Your task to perform on an android device: install app "DuckDuckGo Privacy Browser" Image 0: 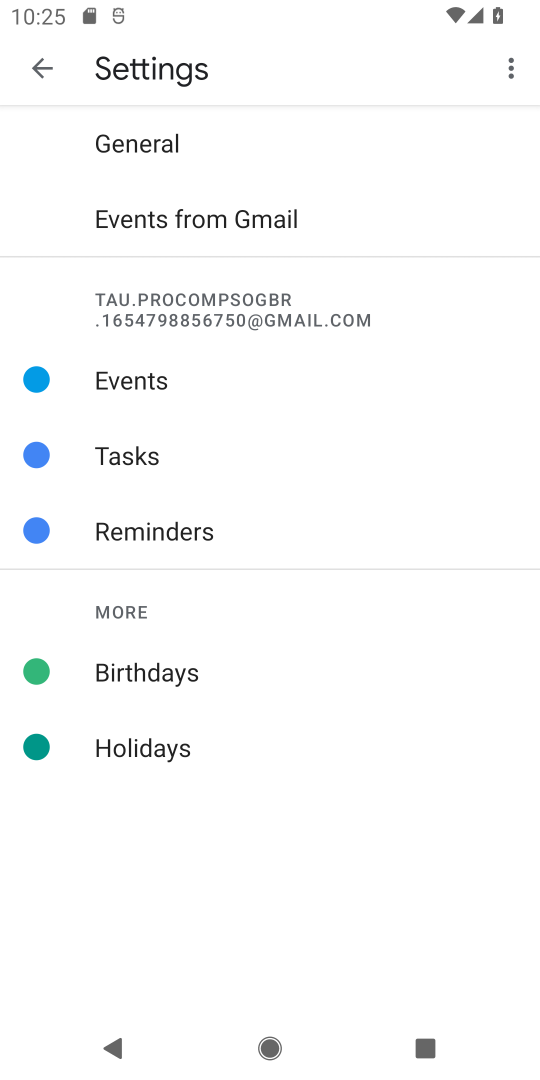
Step 0: press home button
Your task to perform on an android device: install app "DuckDuckGo Privacy Browser" Image 1: 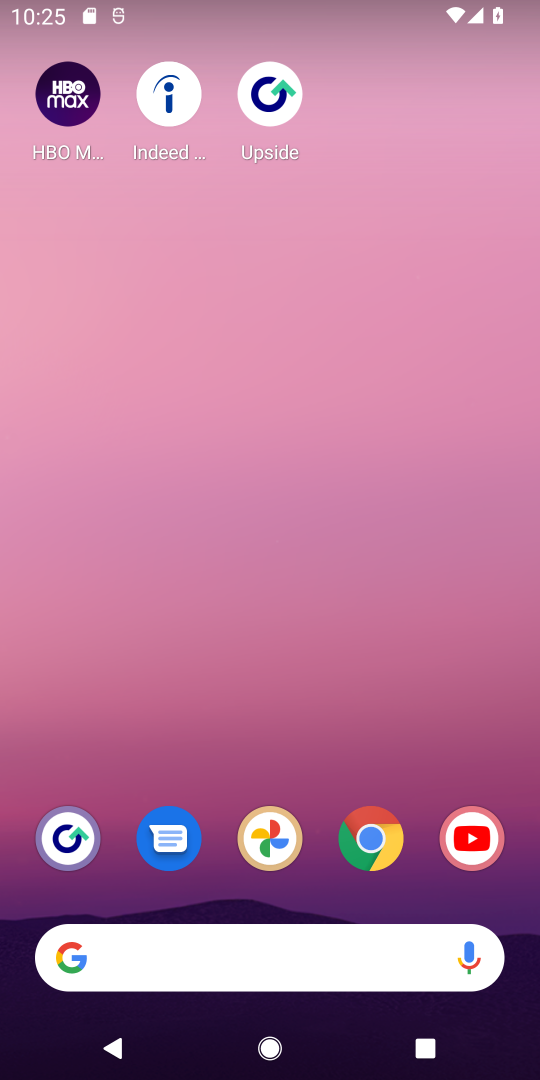
Step 1: press home button
Your task to perform on an android device: install app "DuckDuckGo Privacy Browser" Image 2: 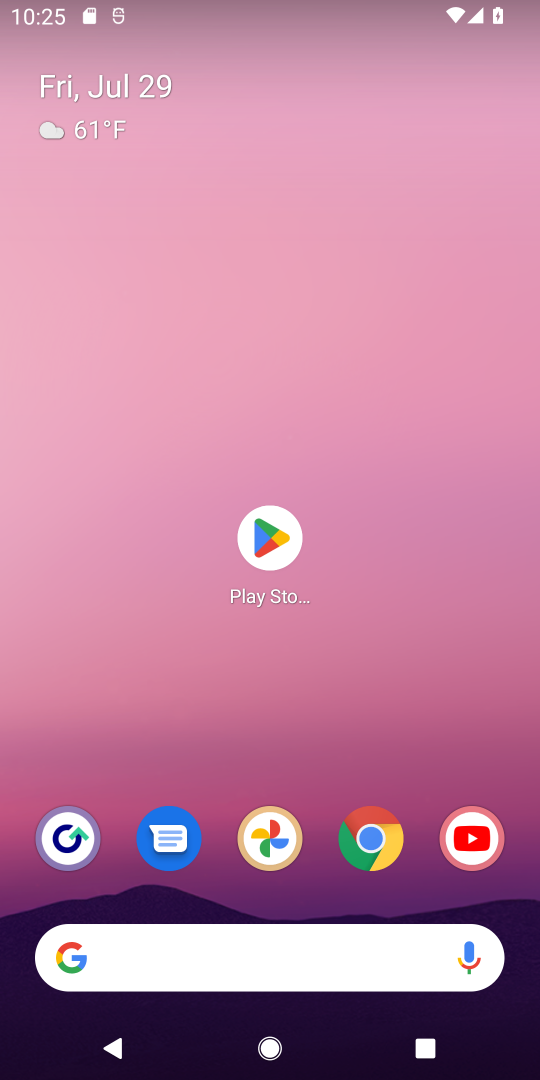
Step 2: click (277, 530)
Your task to perform on an android device: install app "DuckDuckGo Privacy Browser" Image 3: 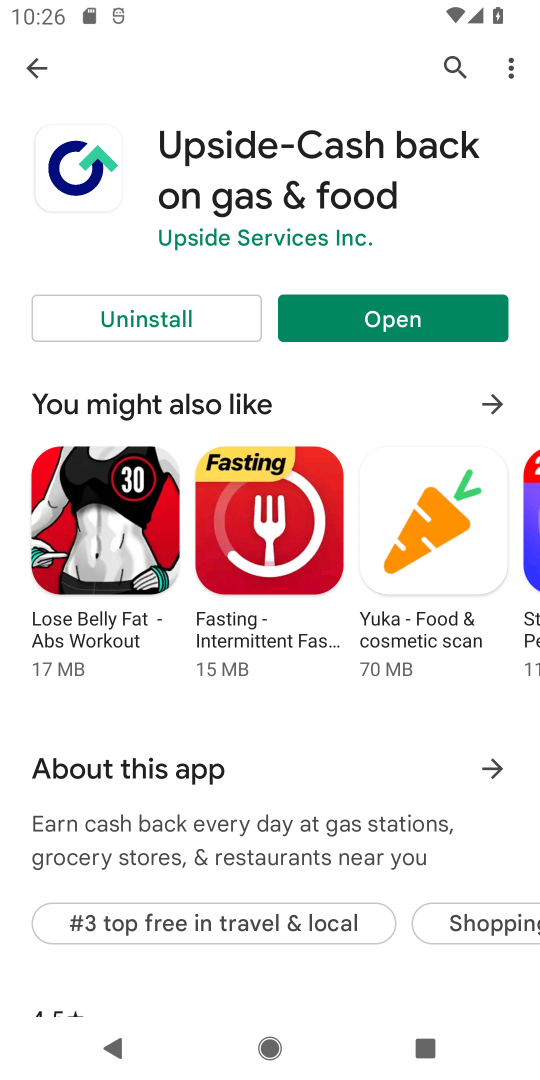
Step 3: click (451, 68)
Your task to perform on an android device: install app "DuckDuckGo Privacy Browser" Image 4: 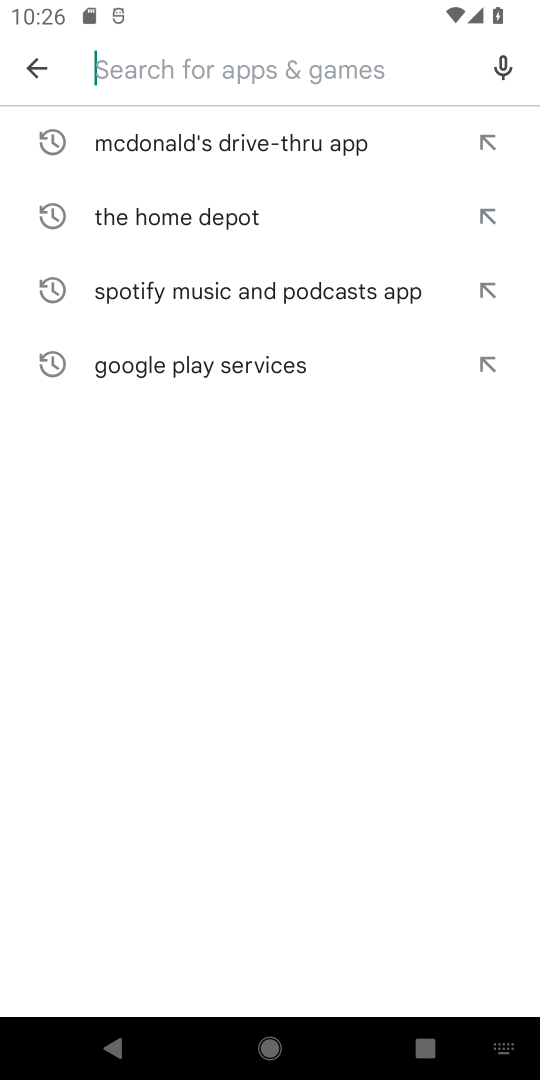
Step 4: type "DuckDuckGo Privacy Browser"
Your task to perform on an android device: install app "DuckDuckGo Privacy Browser" Image 5: 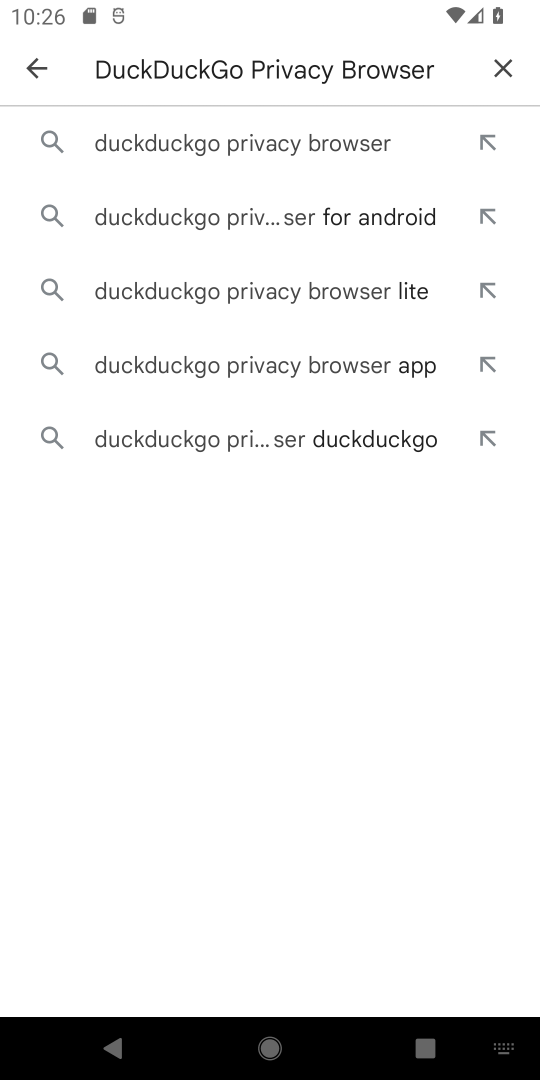
Step 5: click (250, 135)
Your task to perform on an android device: install app "DuckDuckGo Privacy Browser" Image 6: 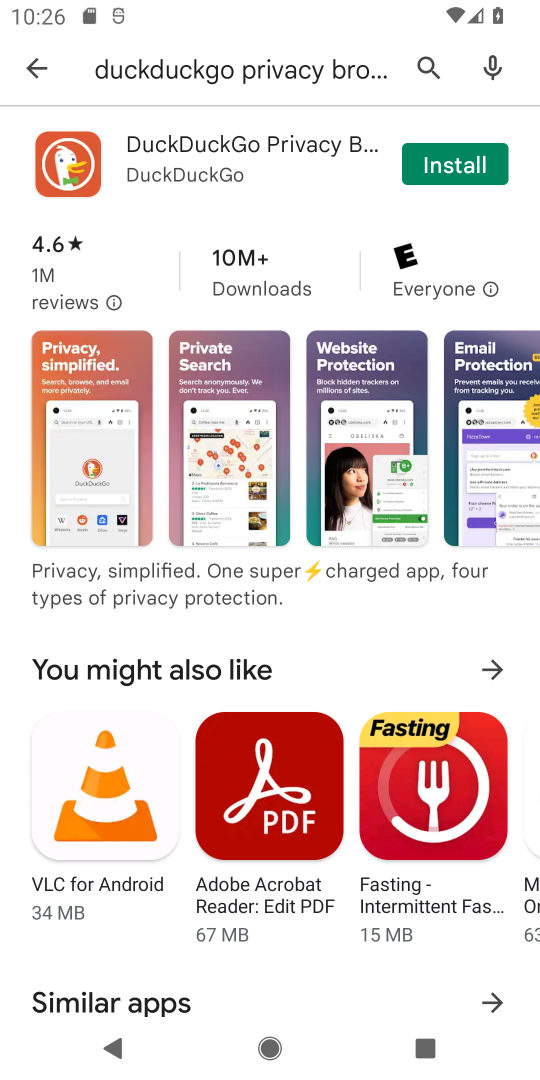
Step 6: click (452, 161)
Your task to perform on an android device: install app "DuckDuckGo Privacy Browser" Image 7: 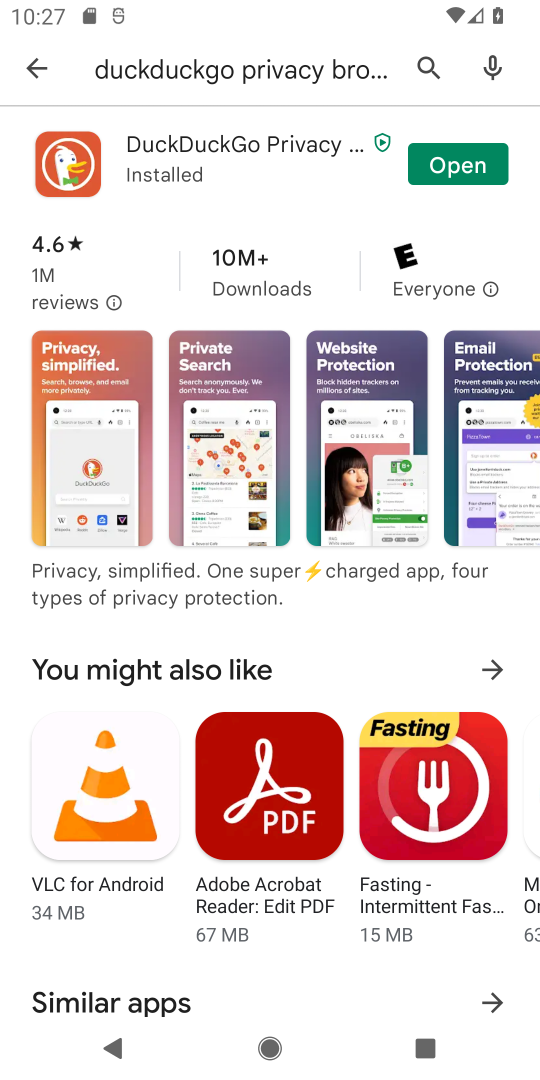
Step 7: task complete